Your task to perform on an android device: allow cookies in the chrome app Image 0: 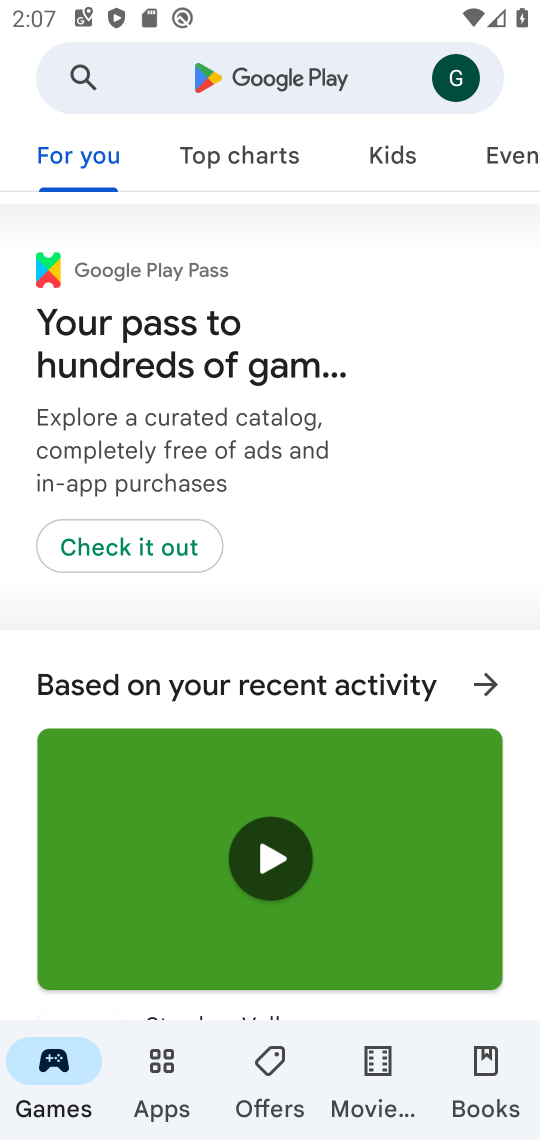
Step 0: press home button
Your task to perform on an android device: allow cookies in the chrome app Image 1: 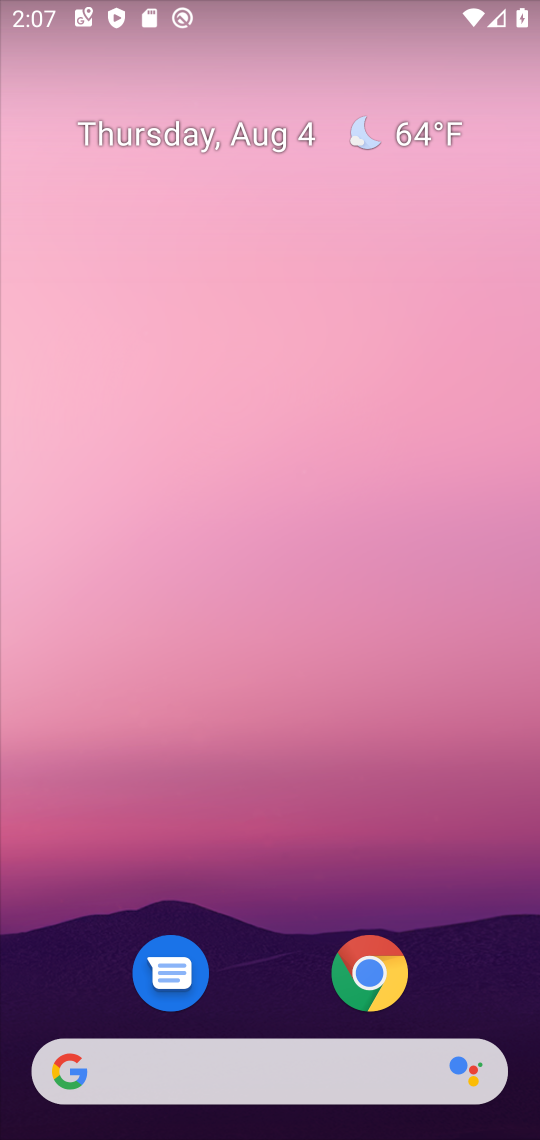
Step 1: drag from (259, 987) to (178, 0)
Your task to perform on an android device: allow cookies in the chrome app Image 2: 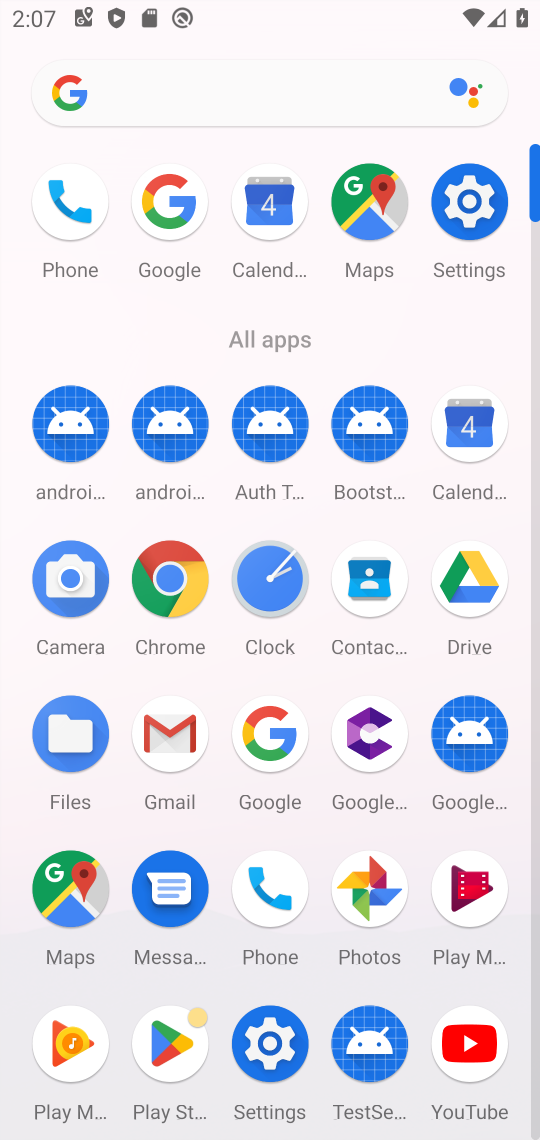
Step 2: click (168, 593)
Your task to perform on an android device: allow cookies in the chrome app Image 3: 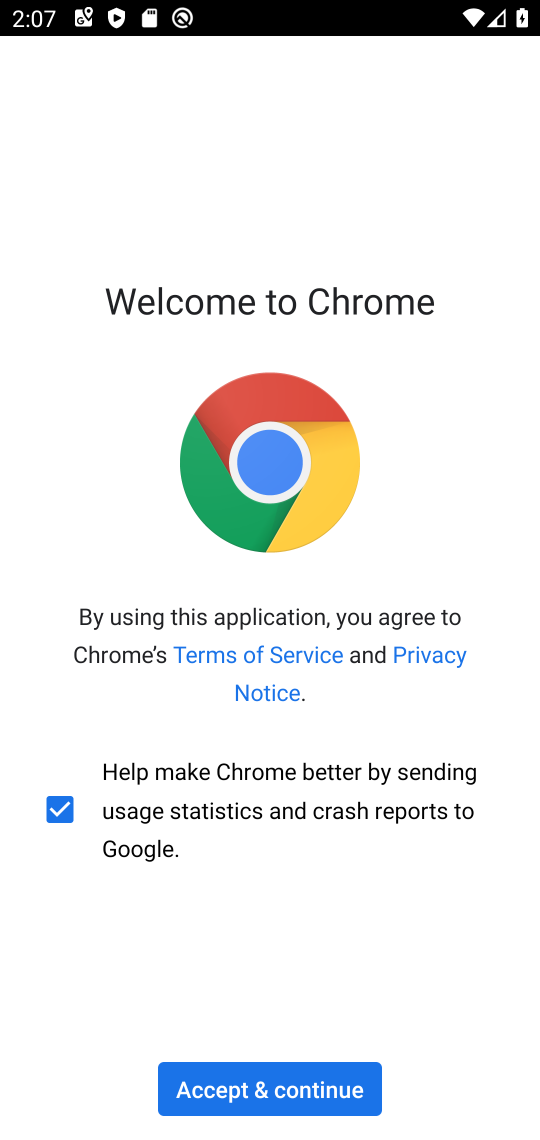
Step 3: click (252, 1096)
Your task to perform on an android device: allow cookies in the chrome app Image 4: 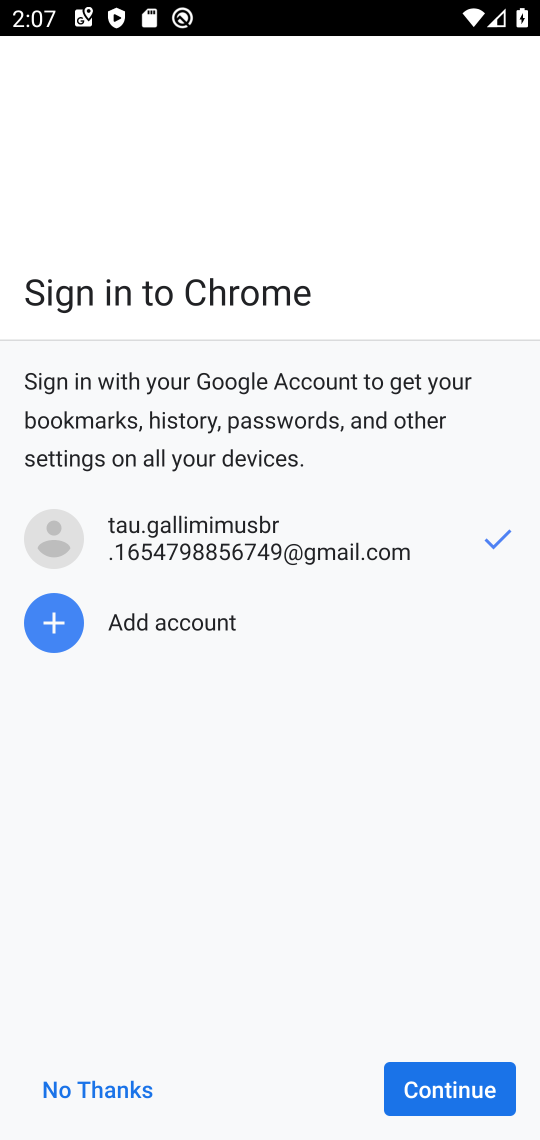
Step 4: click (437, 1092)
Your task to perform on an android device: allow cookies in the chrome app Image 5: 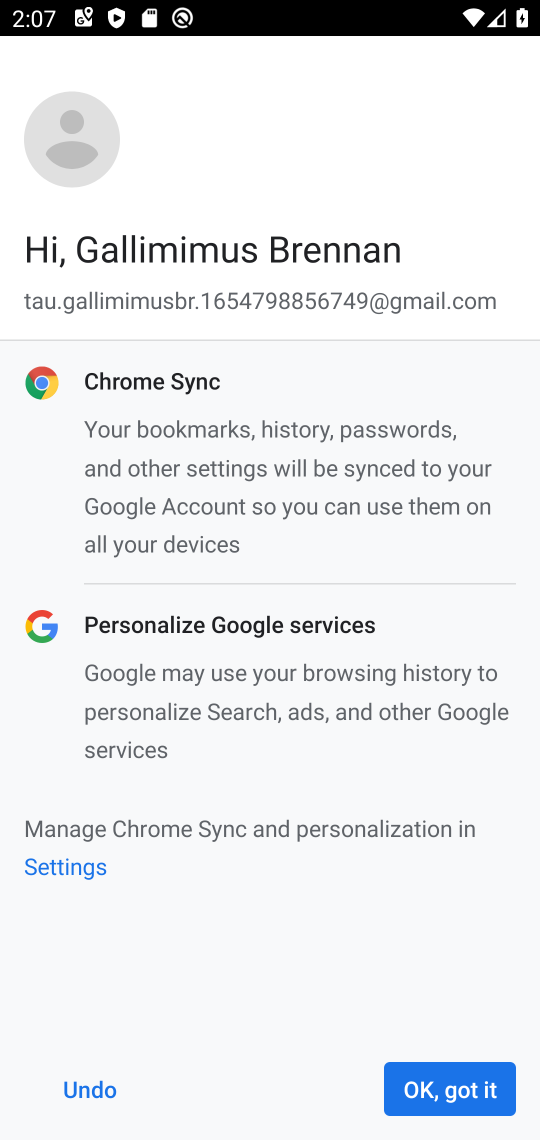
Step 5: click (446, 1074)
Your task to perform on an android device: allow cookies in the chrome app Image 6: 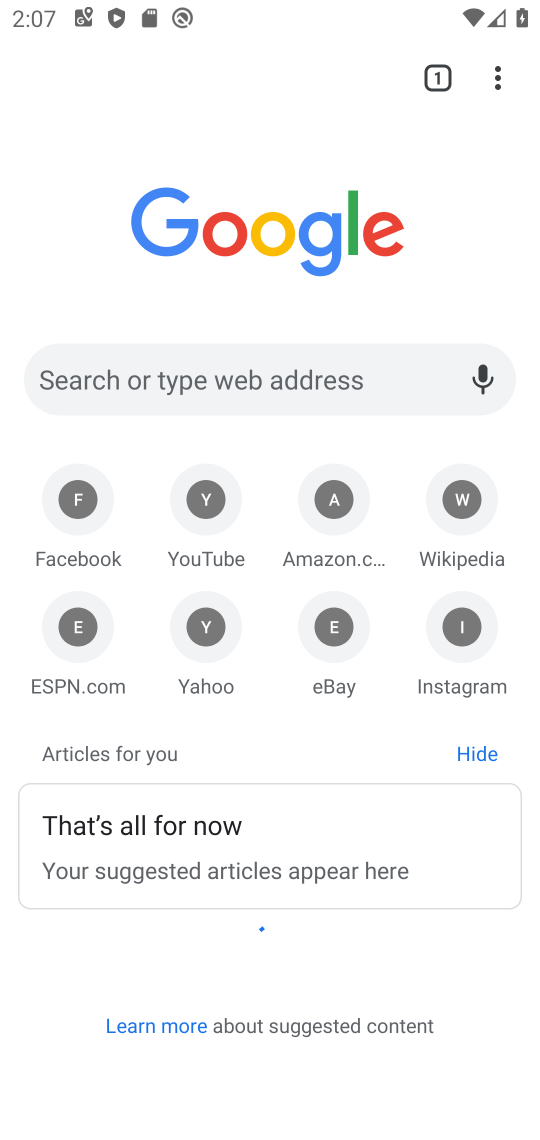
Step 6: drag from (484, 72) to (247, 659)
Your task to perform on an android device: allow cookies in the chrome app Image 7: 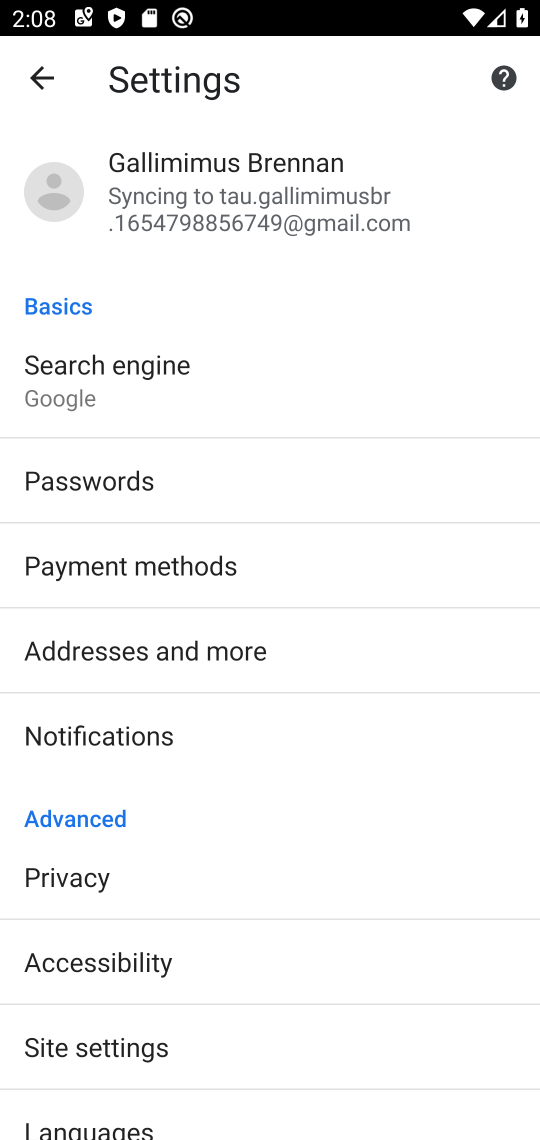
Step 7: click (127, 1048)
Your task to perform on an android device: allow cookies in the chrome app Image 8: 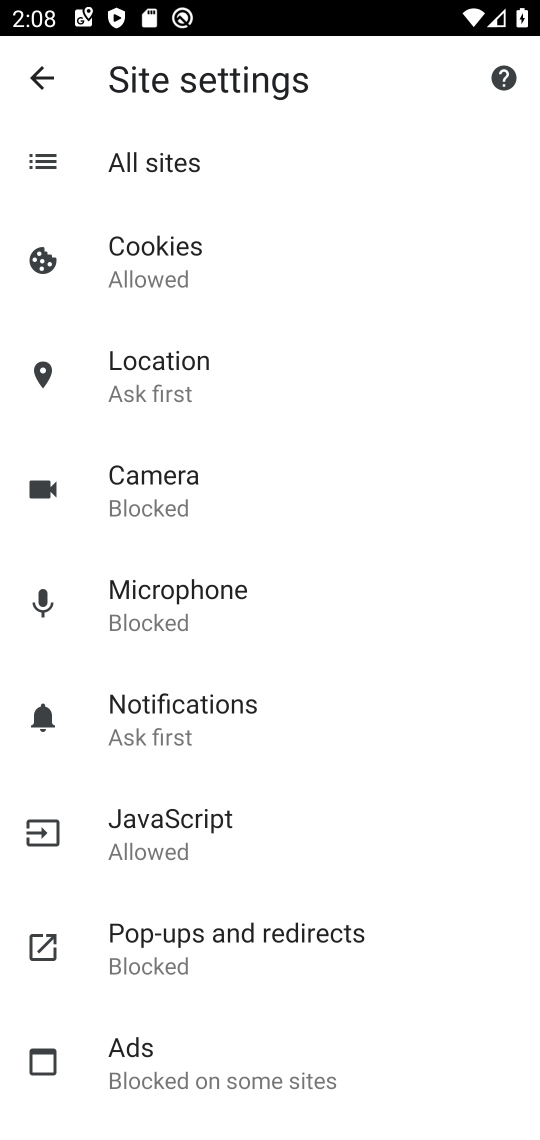
Step 8: click (160, 271)
Your task to perform on an android device: allow cookies in the chrome app Image 9: 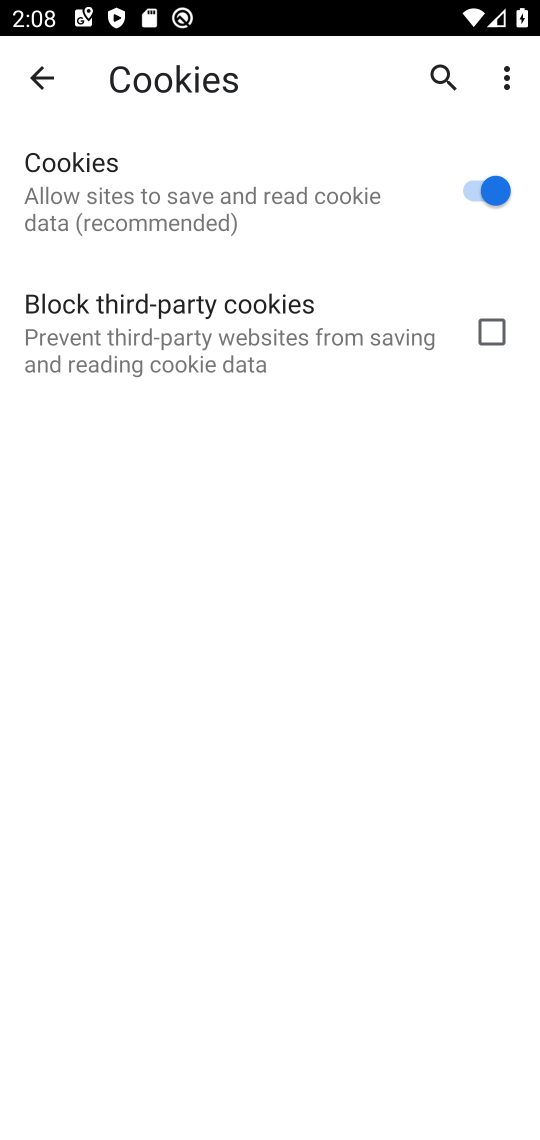
Step 9: task complete